Your task to perform on an android device: turn off data saver in the chrome app Image 0: 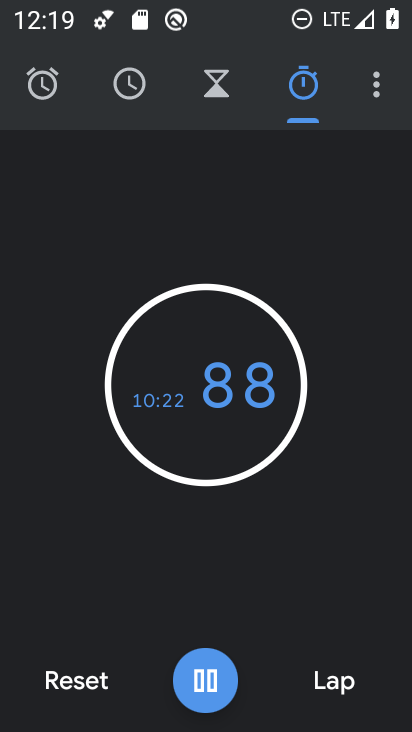
Step 0: press home button
Your task to perform on an android device: turn off data saver in the chrome app Image 1: 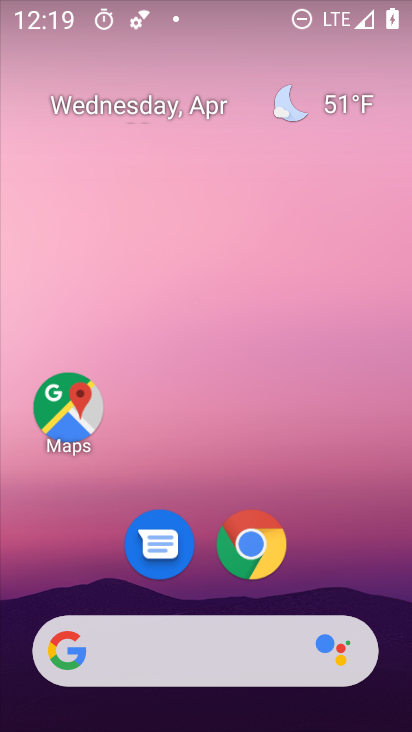
Step 1: drag from (321, 556) to (336, 117)
Your task to perform on an android device: turn off data saver in the chrome app Image 2: 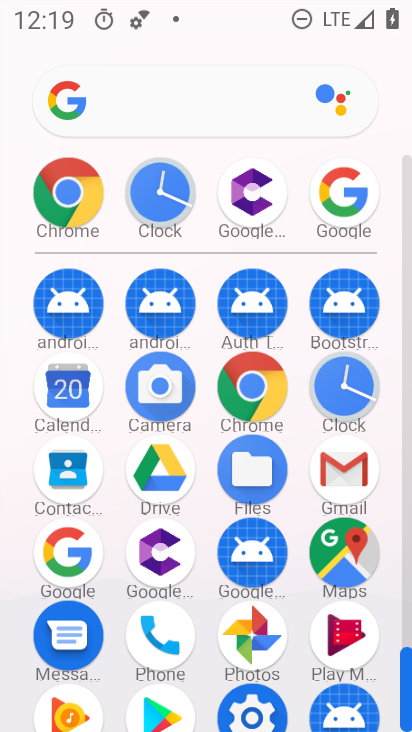
Step 2: click (77, 199)
Your task to perform on an android device: turn off data saver in the chrome app Image 3: 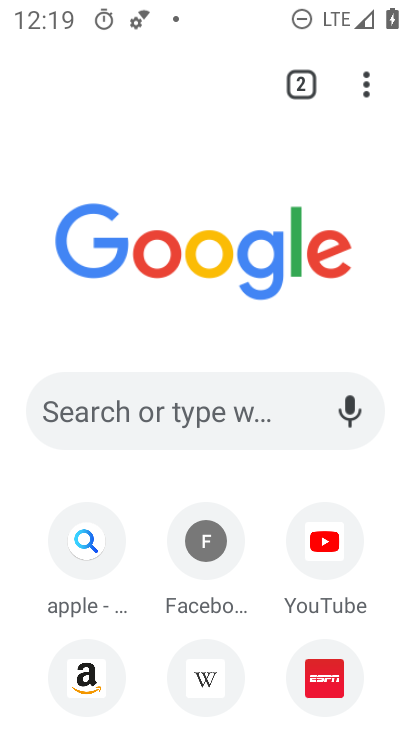
Step 3: click (367, 93)
Your task to perform on an android device: turn off data saver in the chrome app Image 4: 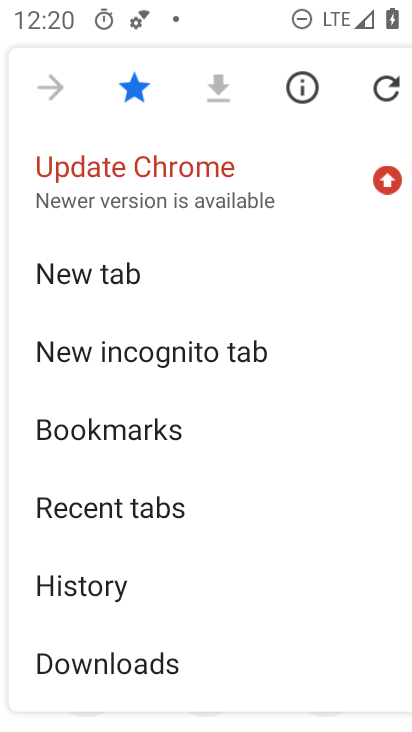
Step 4: drag from (315, 504) to (328, 367)
Your task to perform on an android device: turn off data saver in the chrome app Image 5: 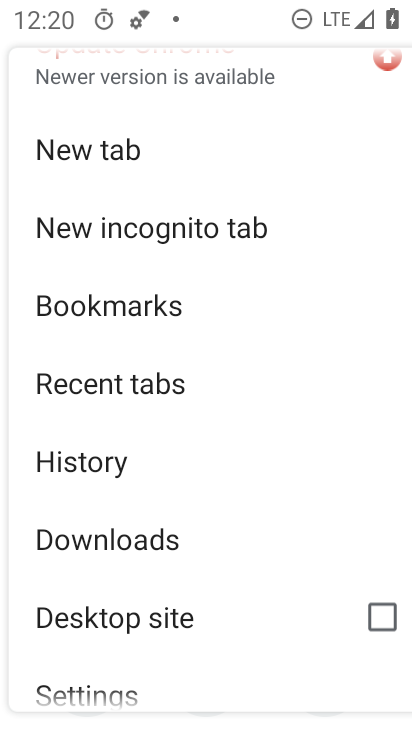
Step 5: drag from (299, 522) to (310, 392)
Your task to perform on an android device: turn off data saver in the chrome app Image 6: 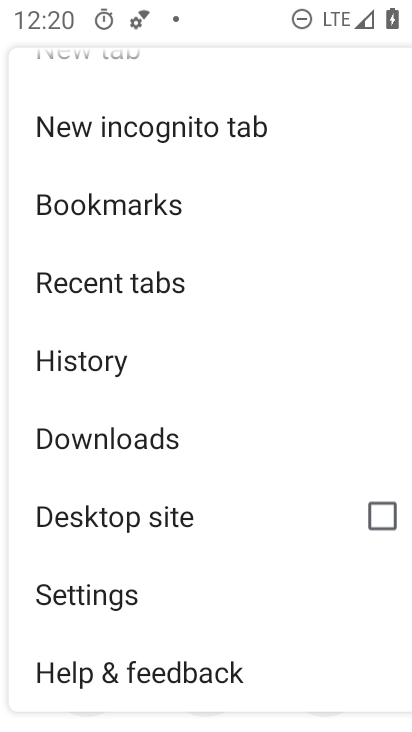
Step 6: drag from (278, 542) to (304, 397)
Your task to perform on an android device: turn off data saver in the chrome app Image 7: 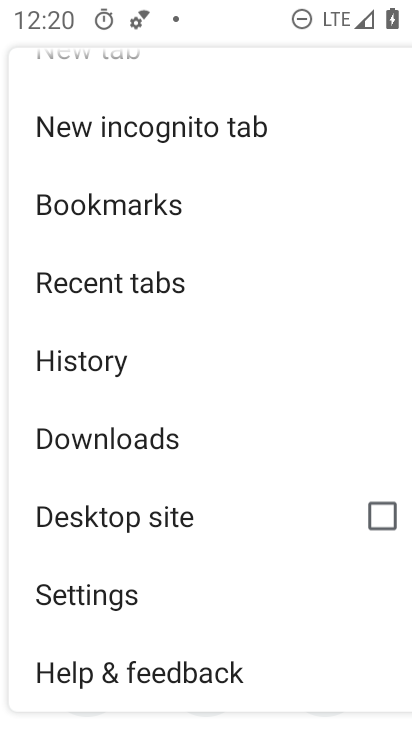
Step 7: click (132, 597)
Your task to perform on an android device: turn off data saver in the chrome app Image 8: 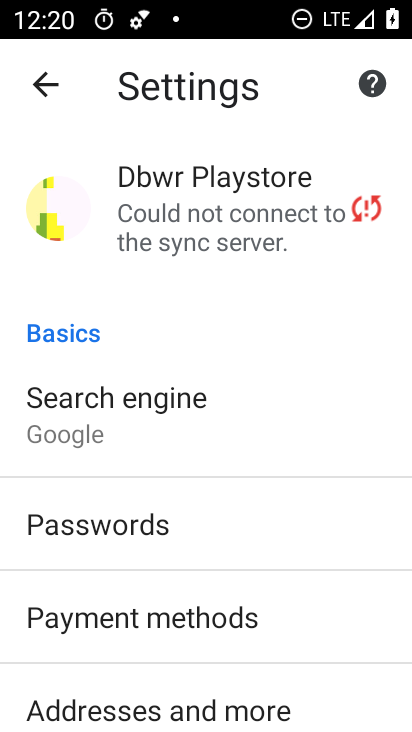
Step 8: drag from (347, 619) to (371, 469)
Your task to perform on an android device: turn off data saver in the chrome app Image 9: 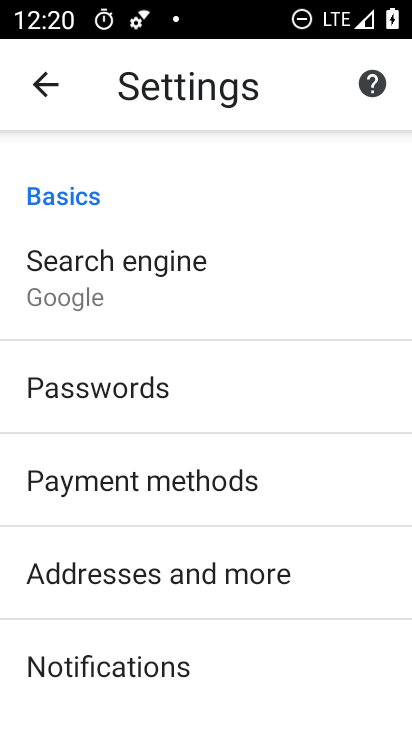
Step 9: drag from (358, 644) to (363, 520)
Your task to perform on an android device: turn off data saver in the chrome app Image 10: 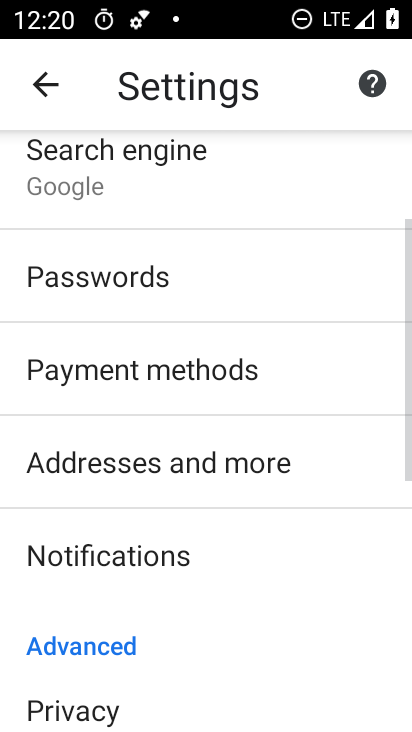
Step 10: drag from (334, 649) to (355, 537)
Your task to perform on an android device: turn off data saver in the chrome app Image 11: 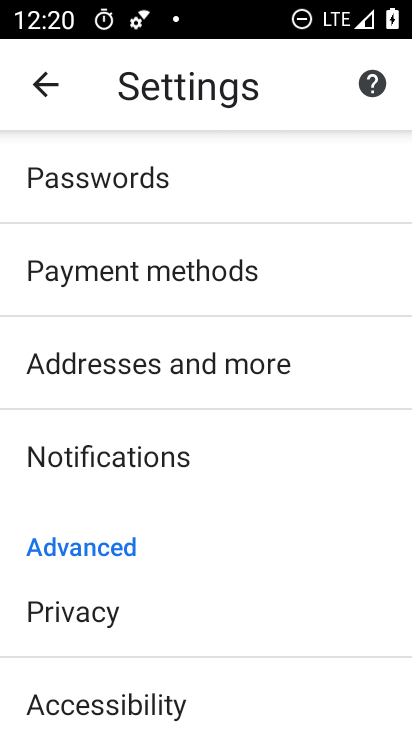
Step 11: drag from (345, 536) to (369, 433)
Your task to perform on an android device: turn off data saver in the chrome app Image 12: 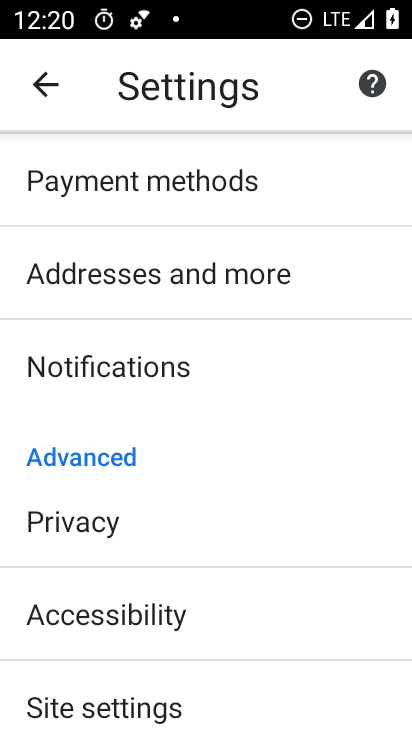
Step 12: drag from (337, 613) to (342, 480)
Your task to perform on an android device: turn off data saver in the chrome app Image 13: 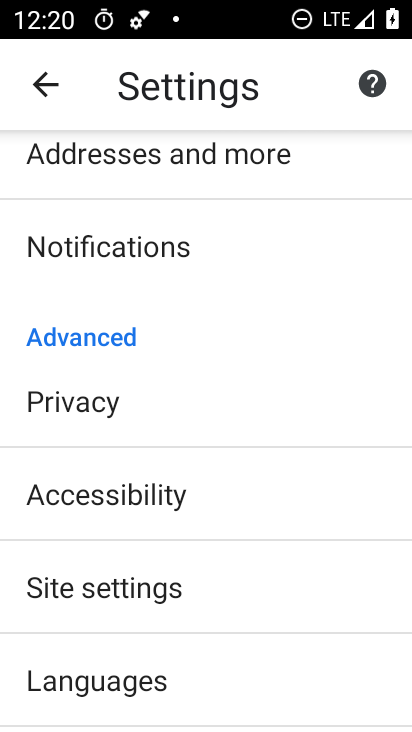
Step 13: drag from (325, 670) to (339, 518)
Your task to perform on an android device: turn off data saver in the chrome app Image 14: 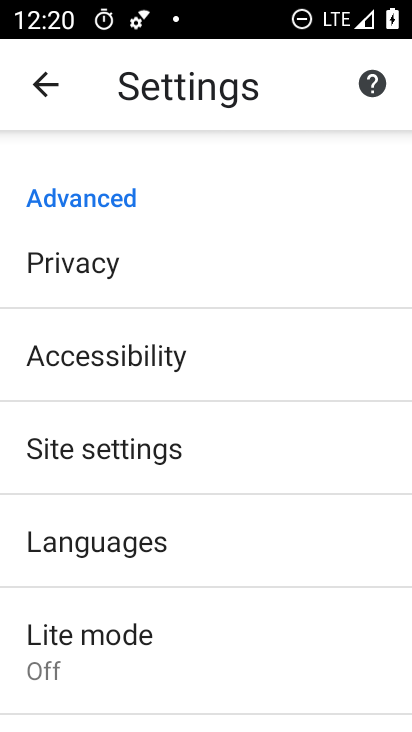
Step 14: drag from (321, 640) to (339, 468)
Your task to perform on an android device: turn off data saver in the chrome app Image 15: 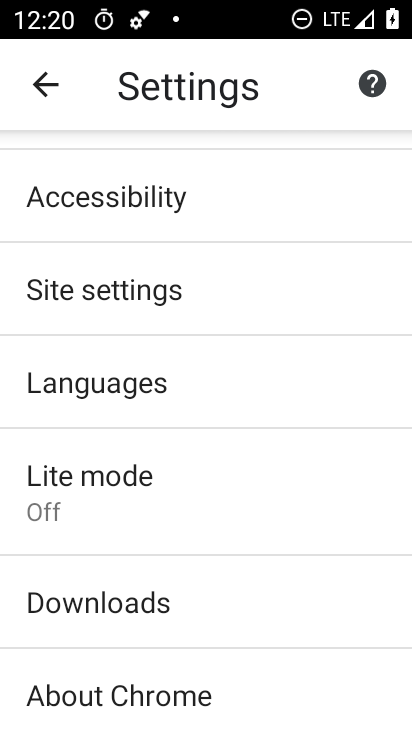
Step 15: drag from (313, 661) to (335, 455)
Your task to perform on an android device: turn off data saver in the chrome app Image 16: 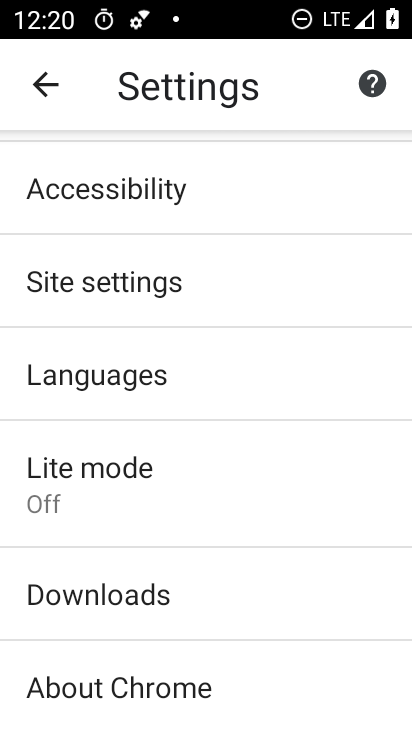
Step 16: drag from (358, 357) to (338, 478)
Your task to perform on an android device: turn off data saver in the chrome app Image 17: 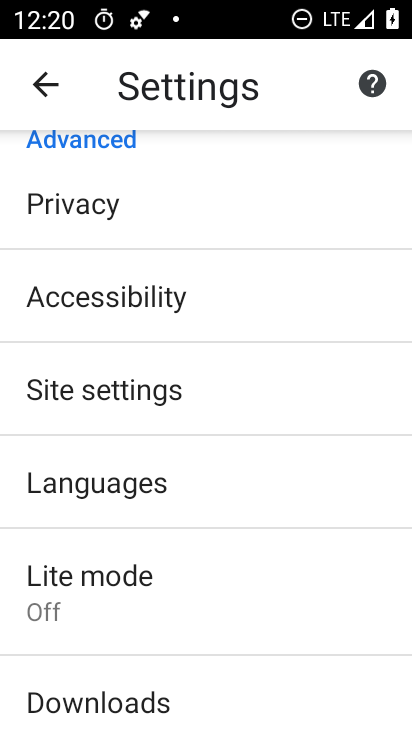
Step 17: click (229, 611)
Your task to perform on an android device: turn off data saver in the chrome app Image 18: 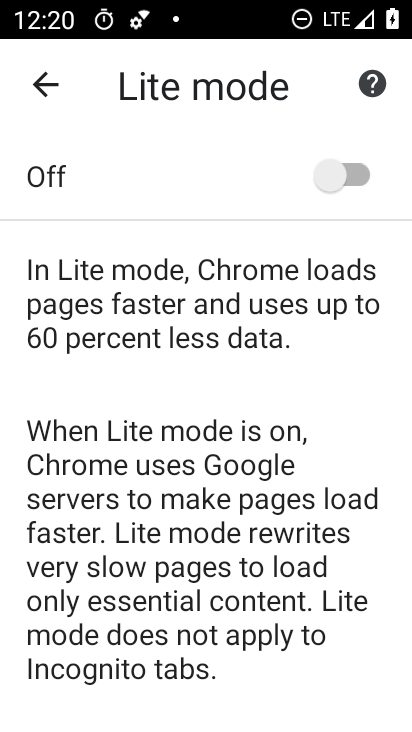
Step 18: task complete